Your task to perform on an android device: check data usage Image 0: 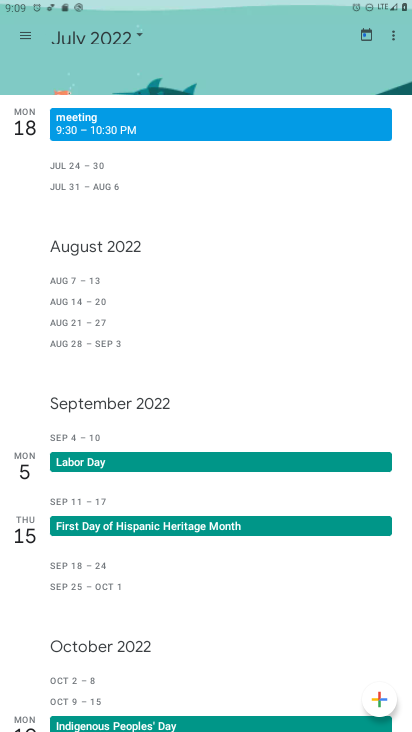
Step 0: press home button
Your task to perform on an android device: check data usage Image 1: 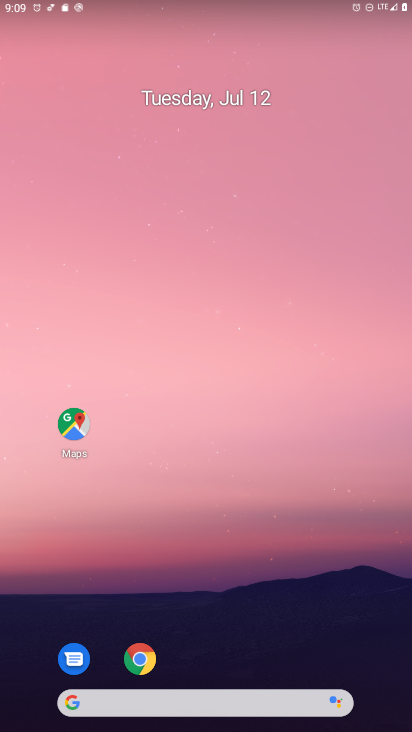
Step 1: drag from (184, 702) to (196, 198)
Your task to perform on an android device: check data usage Image 2: 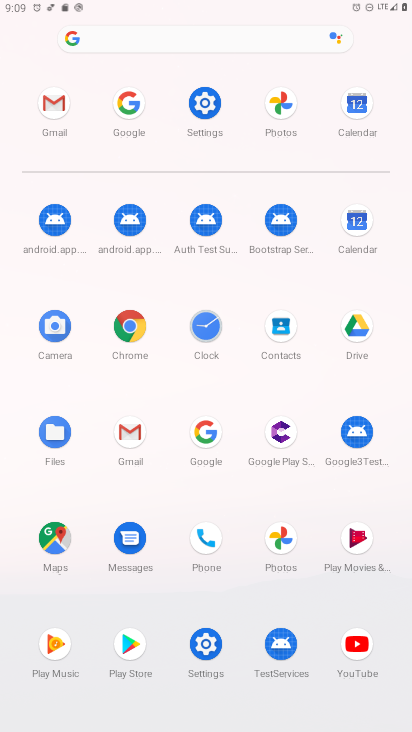
Step 2: click (206, 101)
Your task to perform on an android device: check data usage Image 3: 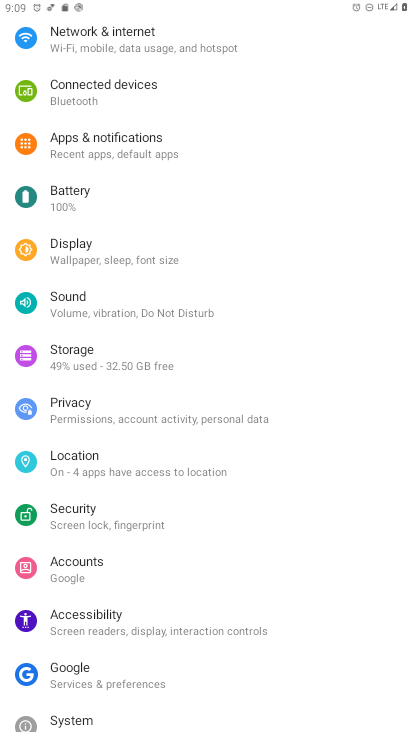
Step 3: click (181, 51)
Your task to perform on an android device: check data usage Image 4: 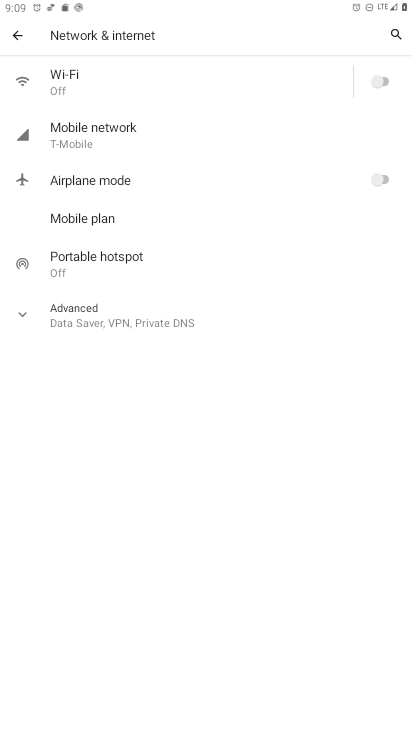
Step 4: click (136, 127)
Your task to perform on an android device: check data usage Image 5: 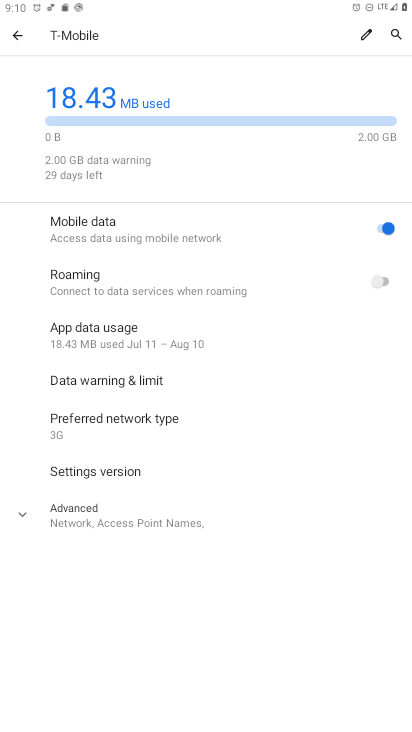
Step 5: task complete